Your task to perform on an android device: see sites visited before in the chrome app Image 0: 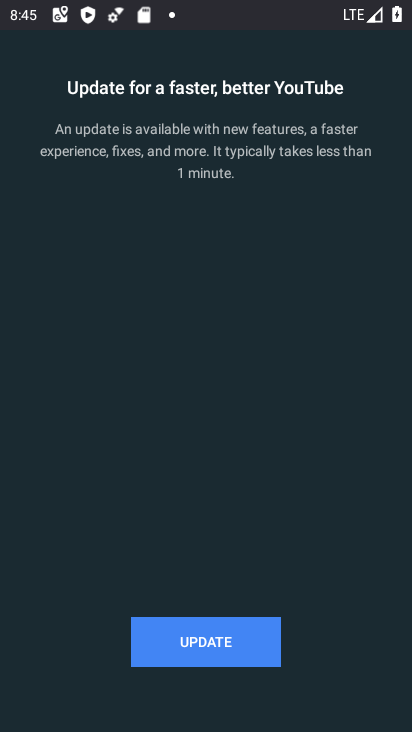
Step 0: press back button
Your task to perform on an android device: see sites visited before in the chrome app Image 1: 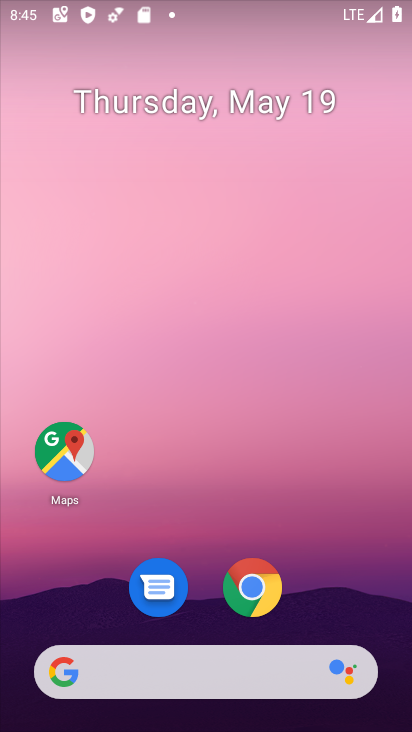
Step 1: drag from (310, 600) to (250, 25)
Your task to perform on an android device: see sites visited before in the chrome app Image 2: 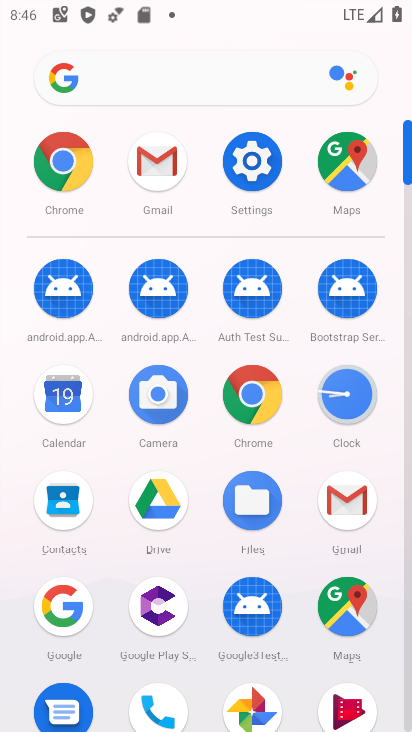
Step 2: click (249, 387)
Your task to perform on an android device: see sites visited before in the chrome app Image 3: 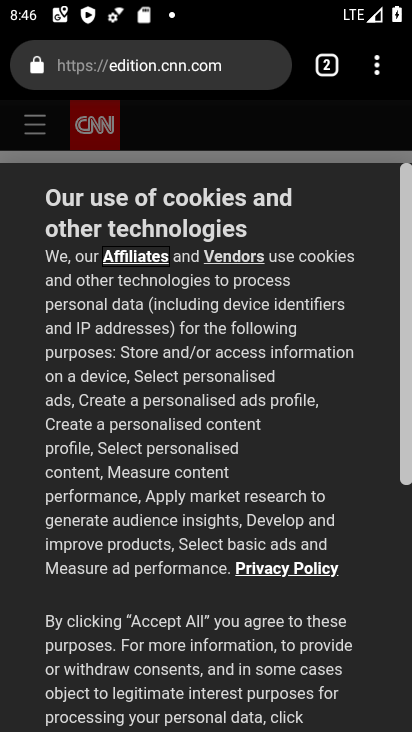
Step 3: drag from (221, 612) to (220, 224)
Your task to perform on an android device: see sites visited before in the chrome app Image 4: 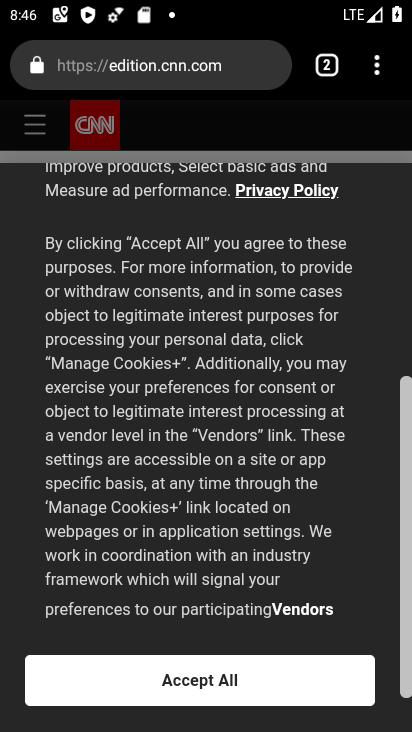
Step 4: click (207, 680)
Your task to perform on an android device: see sites visited before in the chrome app Image 5: 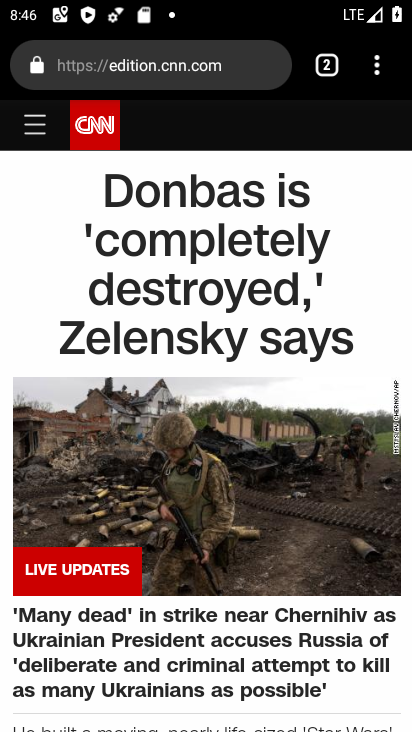
Step 5: task complete